Your task to perform on an android device: change alarm snooze length Image 0: 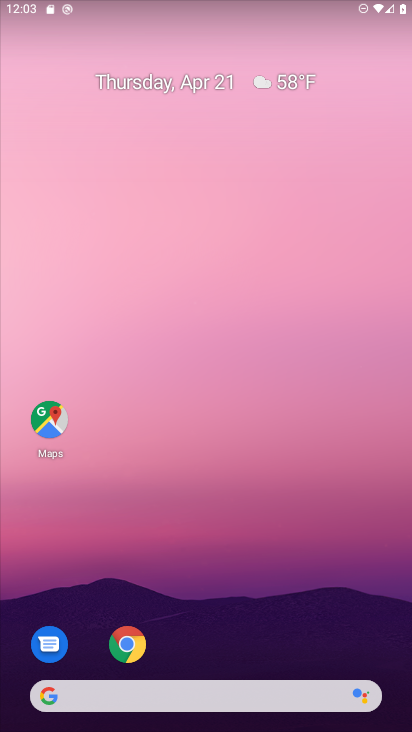
Step 0: drag from (188, 669) to (209, 193)
Your task to perform on an android device: change alarm snooze length Image 1: 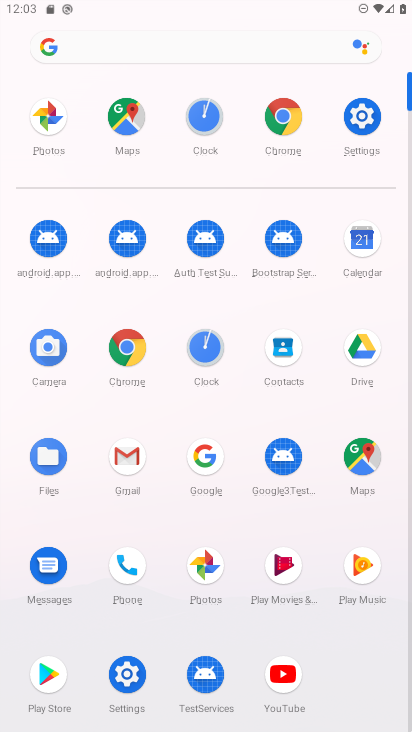
Step 1: click (207, 359)
Your task to perform on an android device: change alarm snooze length Image 2: 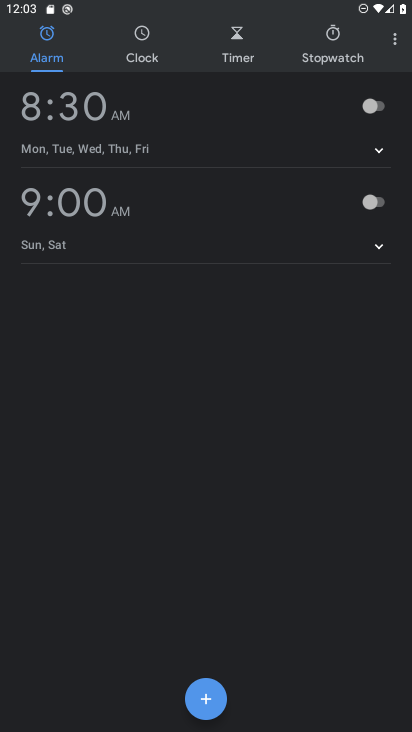
Step 2: click (394, 37)
Your task to perform on an android device: change alarm snooze length Image 3: 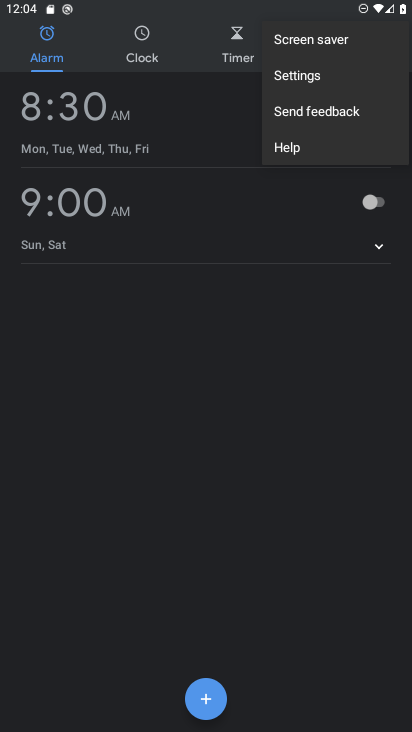
Step 3: click (324, 80)
Your task to perform on an android device: change alarm snooze length Image 4: 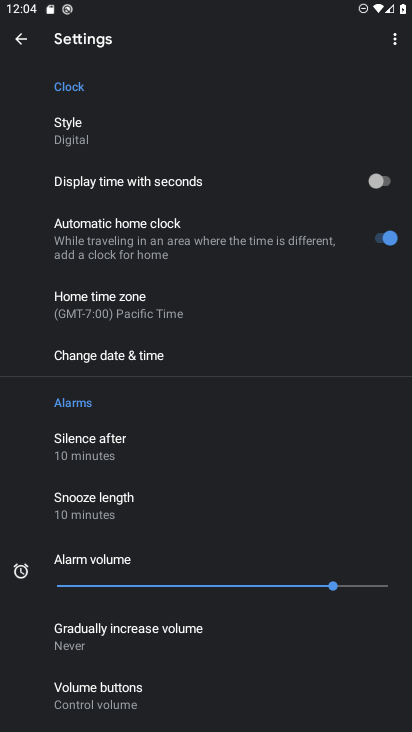
Step 4: drag from (171, 502) to (177, 345)
Your task to perform on an android device: change alarm snooze length Image 5: 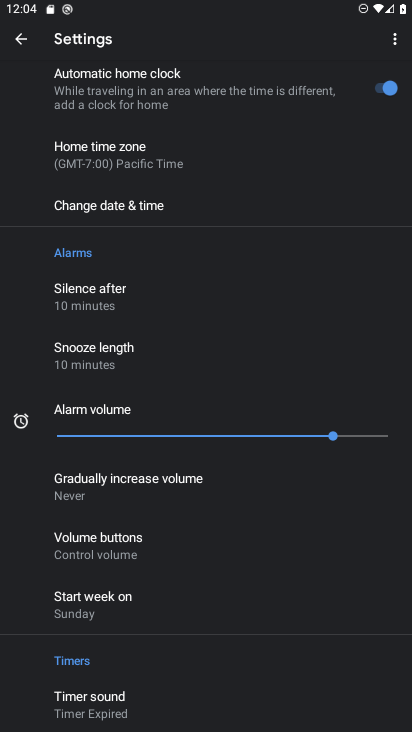
Step 5: click (107, 365)
Your task to perform on an android device: change alarm snooze length Image 6: 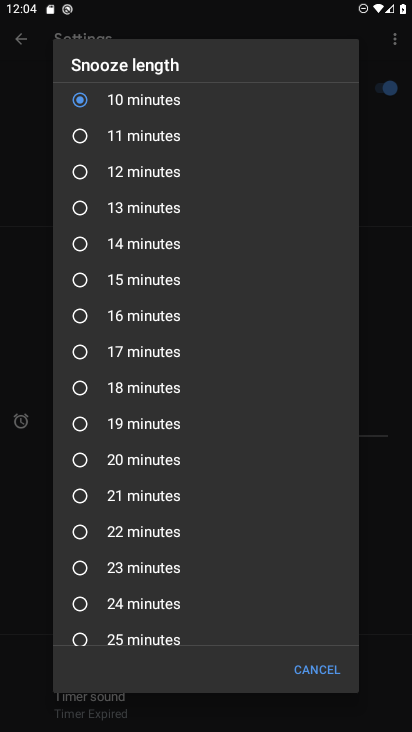
Step 6: click (136, 136)
Your task to perform on an android device: change alarm snooze length Image 7: 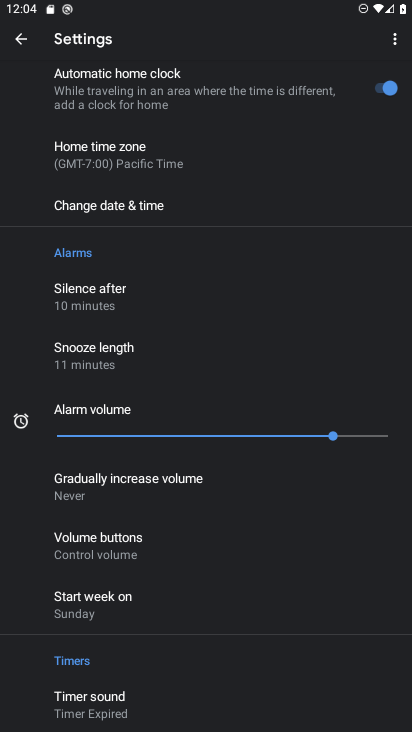
Step 7: task complete